Your task to perform on an android device: allow cookies in the chrome app Image 0: 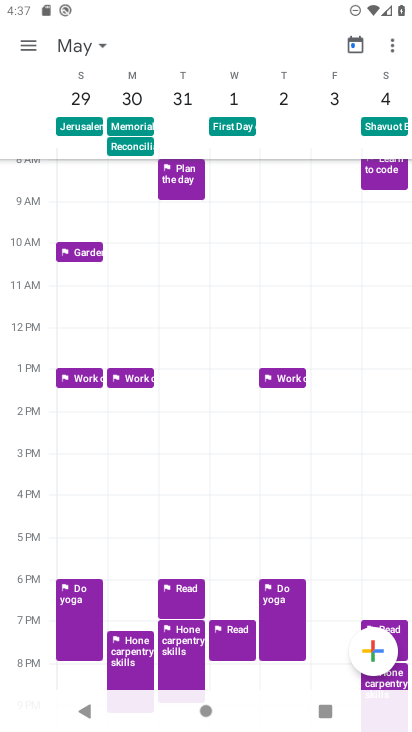
Step 0: press home button
Your task to perform on an android device: allow cookies in the chrome app Image 1: 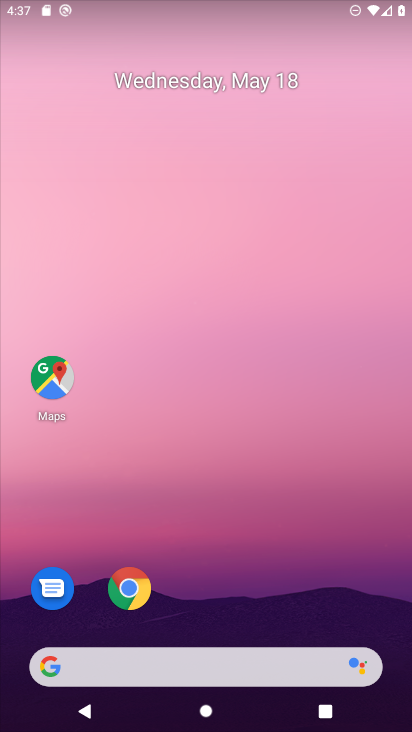
Step 1: click (116, 597)
Your task to perform on an android device: allow cookies in the chrome app Image 2: 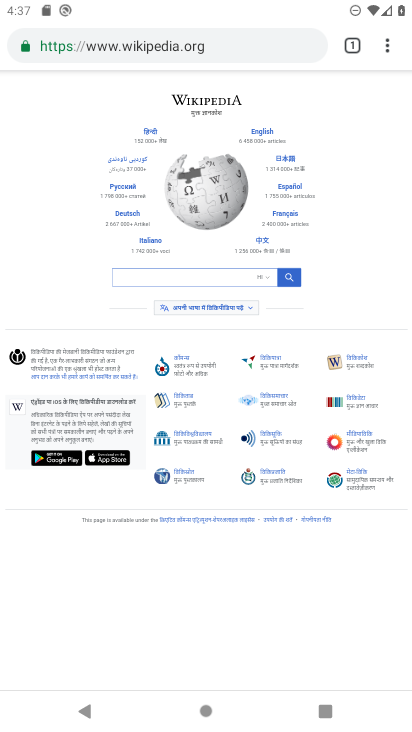
Step 2: click (381, 55)
Your task to perform on an android device: allow cookies in the chrome app Image 3: 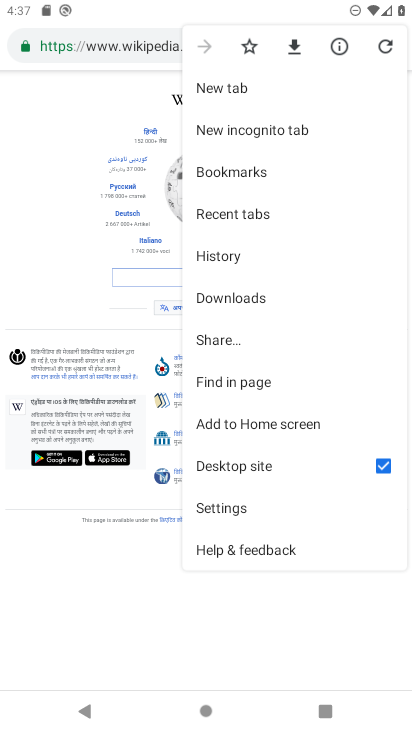
Step 3: click (241, 498)
Your task to perform on an android device: allow cookies in the chrome app Image 4: 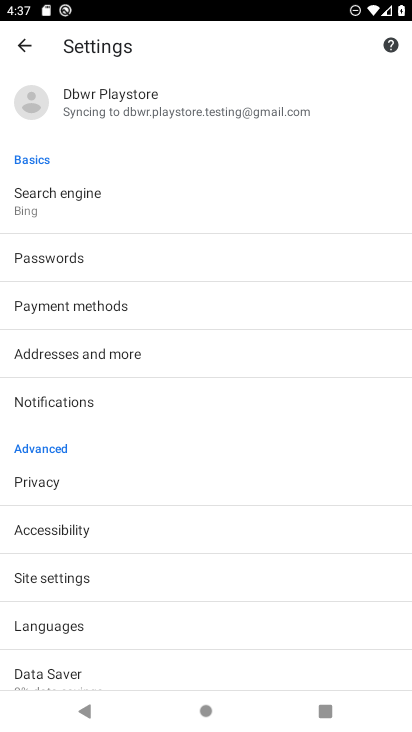
Step 4: click (107, 577)
Your task to perform on an android device: allow cookies in the chrome app Image 5: 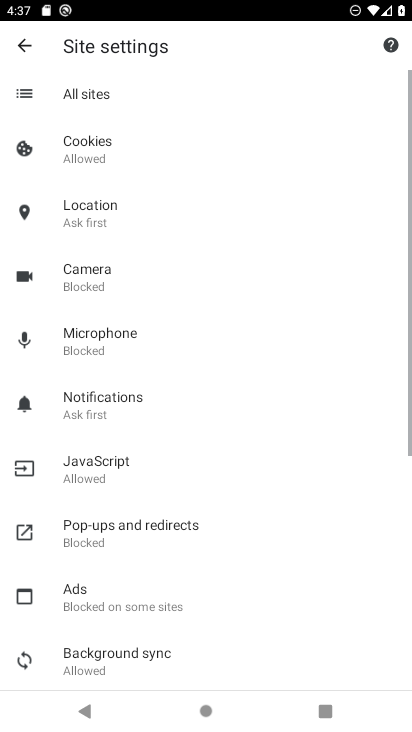
Step 5: task complete